Your task to perform on an android device: Open Chrome and go to settings Image 0: 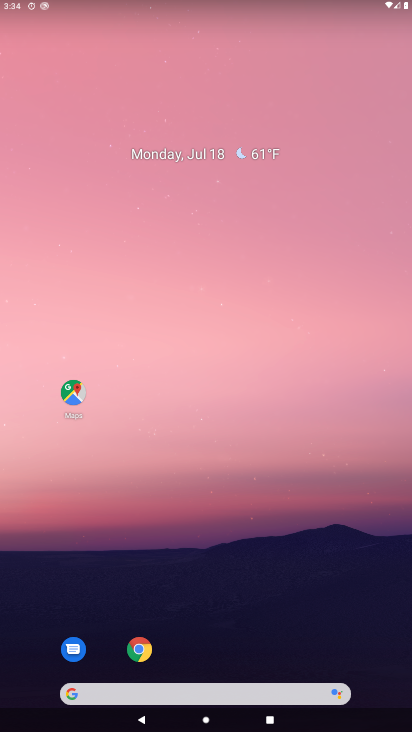
Step 0: click (133, 658)
Your task to perform on an android device: Open Chrome and go to settings Image 1: 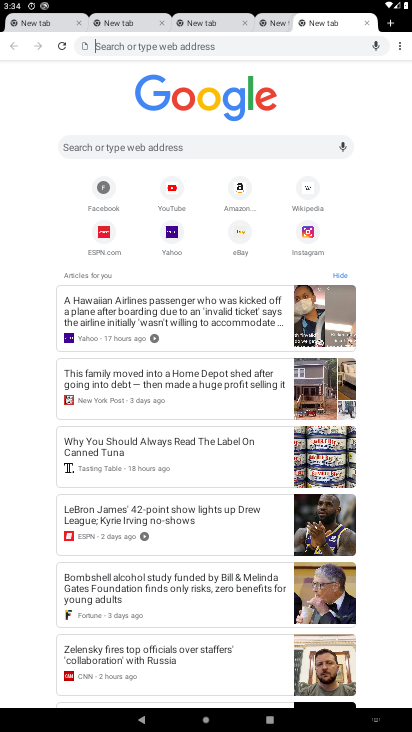
Step 1: click (395, 46)
Your task to perform on an android device: Open Chrome and go to settings Image 2: 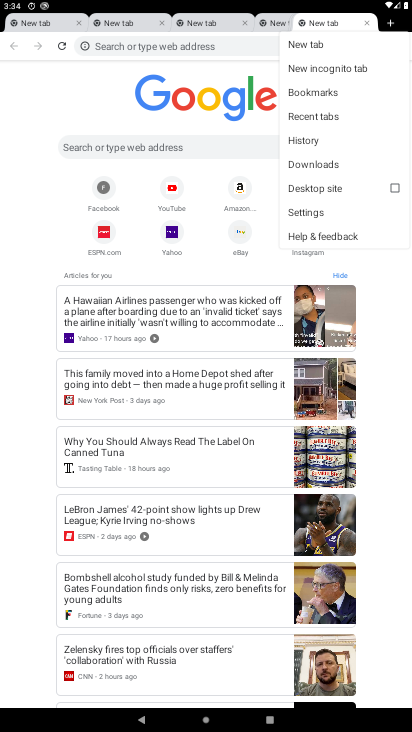
Step 2: click (312, 216)
Your task to perform on an android device: Open Chrome and go to settings Image 3: 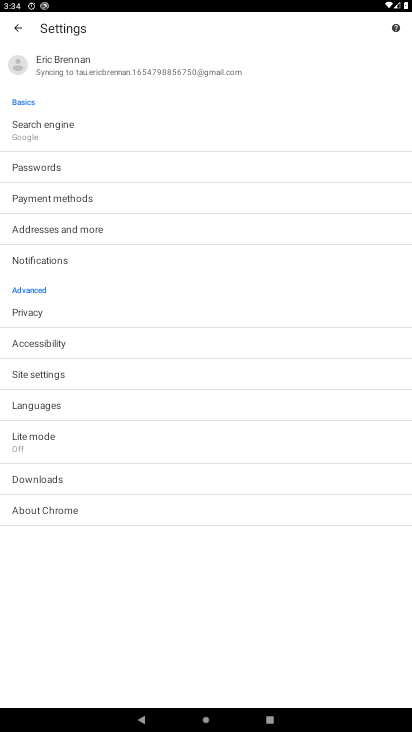
Step 3: task complete